Your task to perform on an android device: clear history in the chrome app Image 0: 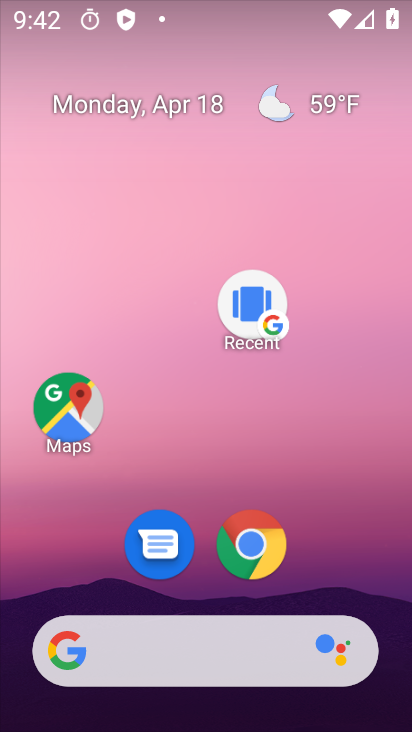
Step 0: drag from (373, 584) to (341, 203)
Your task to perform on an android device: clear history in the chrome app Image 1: 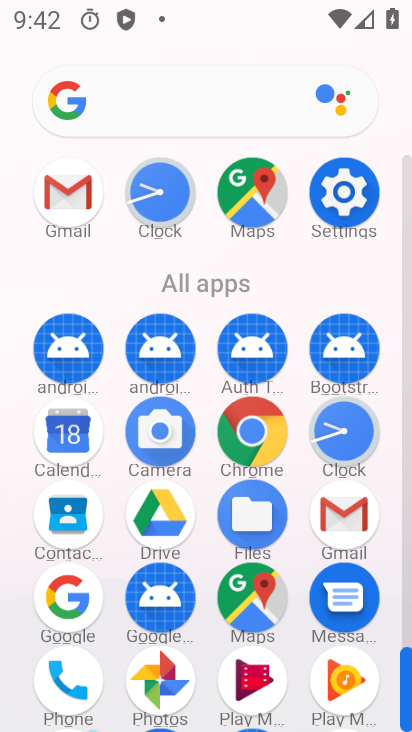
Step 1: click (249, 422)
Your task to perform on an android device: clear history in the chrome app Image 2: 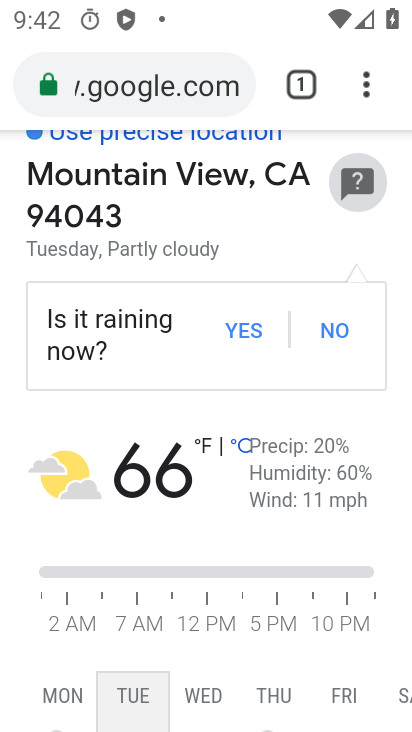
Step 2: drag from (365, 96) to (225, 454)
Your task to perform on an android device: clear history in the chrome app Image 3: 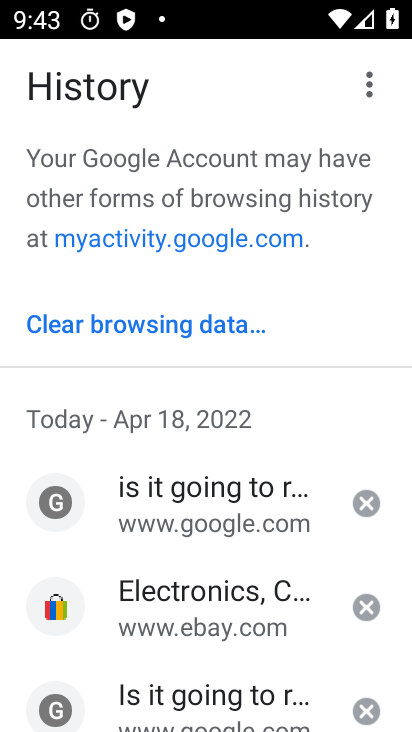
Step 3: click (182, 328)
Your task to perform on an android device: clear history in the chrome app Image 4: 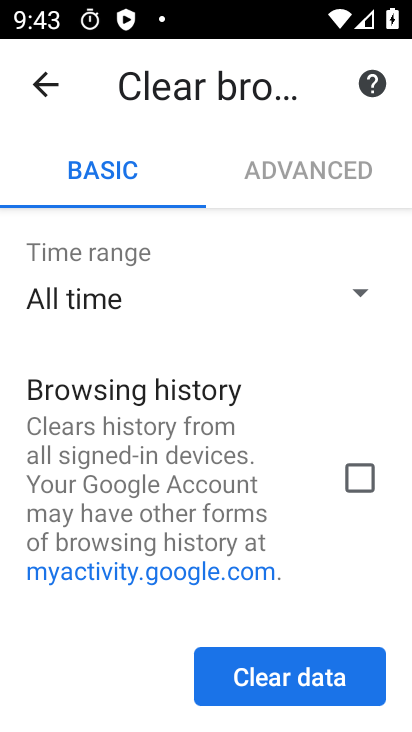
Step 4: click (363, 475)
Your task to perform on an android device: clear history in the chrome app Image 5: 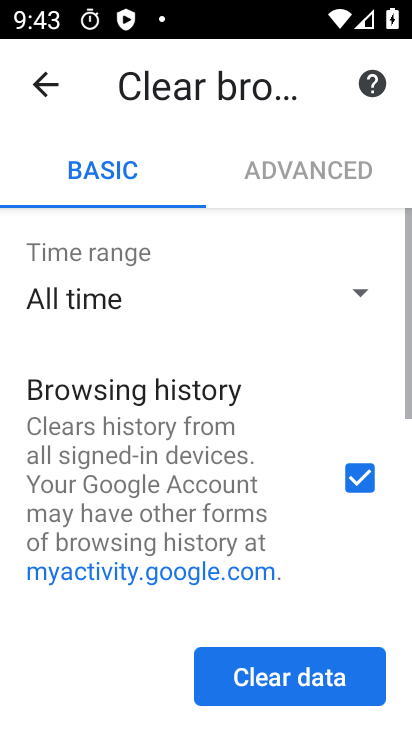
Step 5: click (327, 690)
Your task to perform on an android device: clear history in the chrome app Image 6: 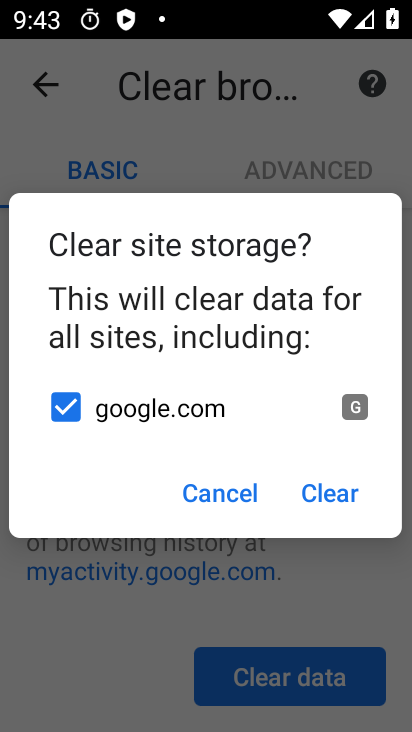
Step 6: click (327, 690)
Your task to perform on an android device: clear history in the chrome app Image 7: 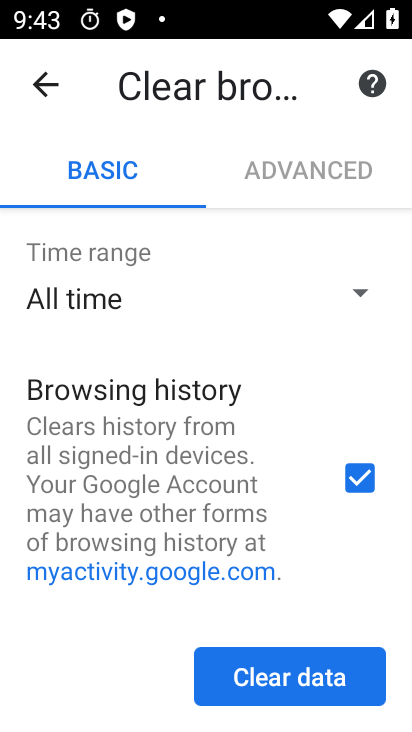
Step 7: click (326, 691)
Your task to perform on an android device: clear history in the chrome app Image 8: 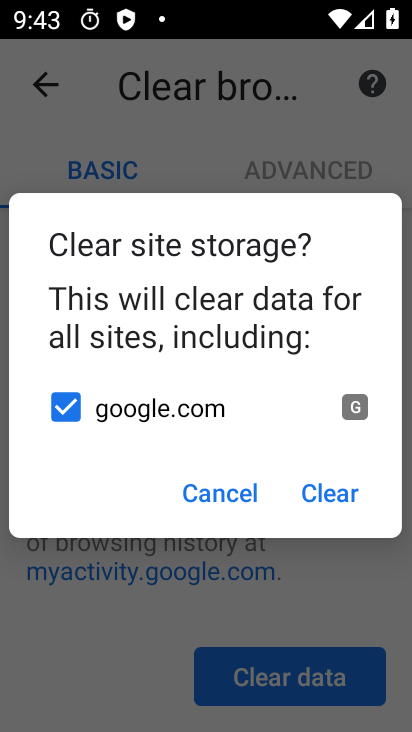
Step 8: click (334, 507)
Your task to perform on an android device: clear history in the chrome app Image 9: 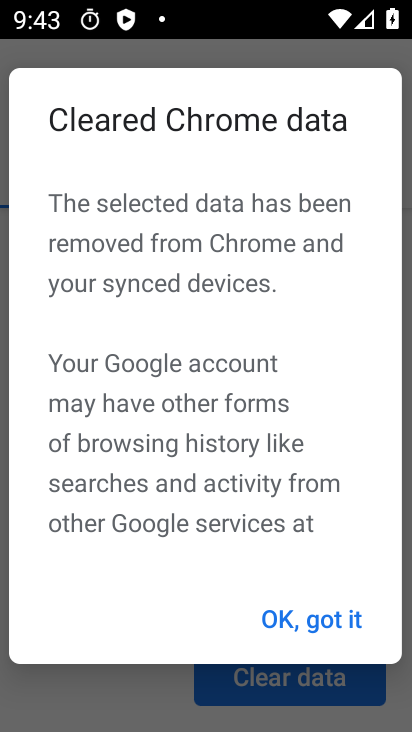
Step 9: click (311, 624)
Your task to perform on an android device: clear history in the chrome app Image 10: 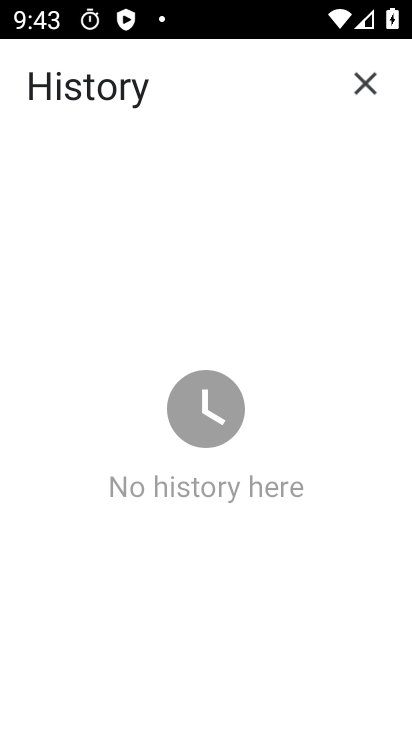
Step 10: task complete